Your task to perform on an android device: Show me popular games on the Play Store Image 0: 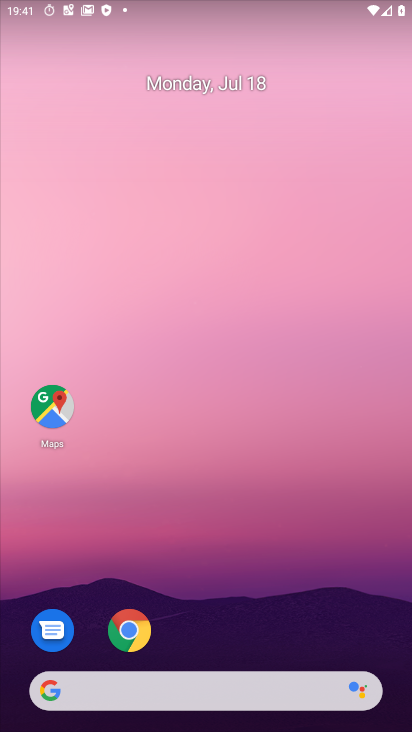
Step 0: drag from (244, 475) to (235, 42)
Your task to perform on an android device: Show me popular games on the Play Store Image 1: 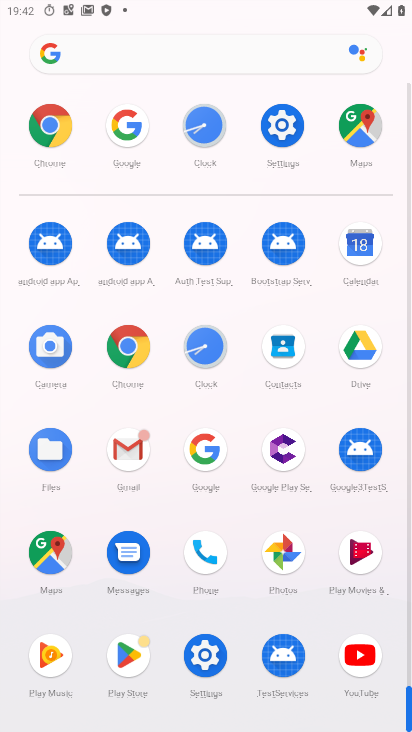
Step 1: click (137, 657)
Your task to perform on an android device: Show me popular games on the Play Store Image 2: 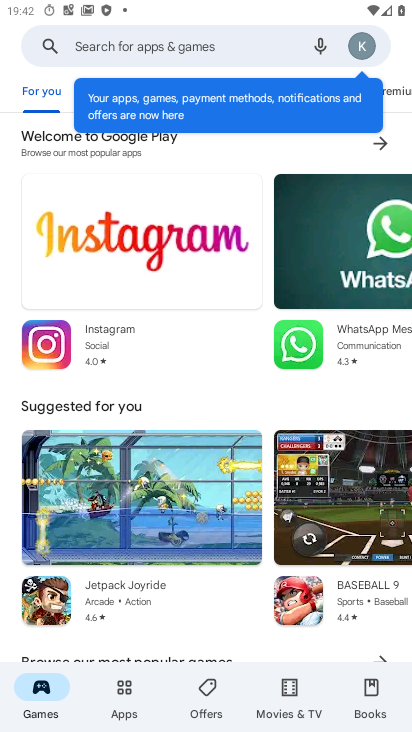
Step 2: click (141, 46)
Your task to perform on an android device: Show me popular games on the Play Store Image 3: 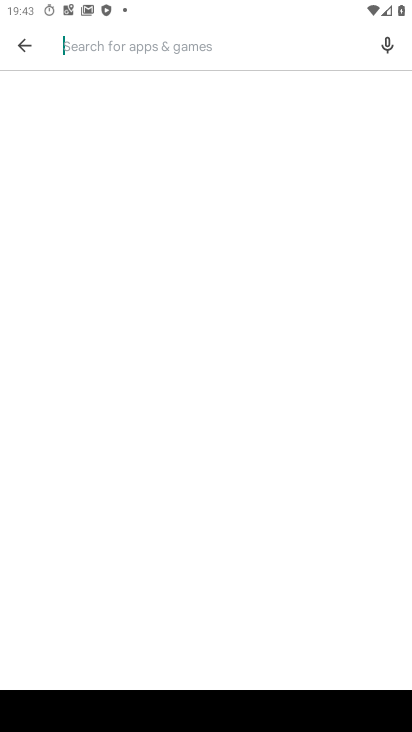
Step 3: type " popular games "
Your task to perform on an android device: Show me popular games on the Play Store Image 4: 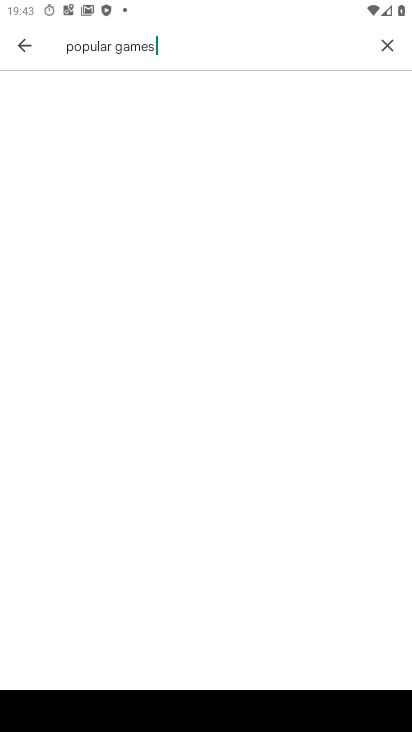
Step 4: press enter
Your task to perform on an android device: Show me popular games on the Play Store Image 5: 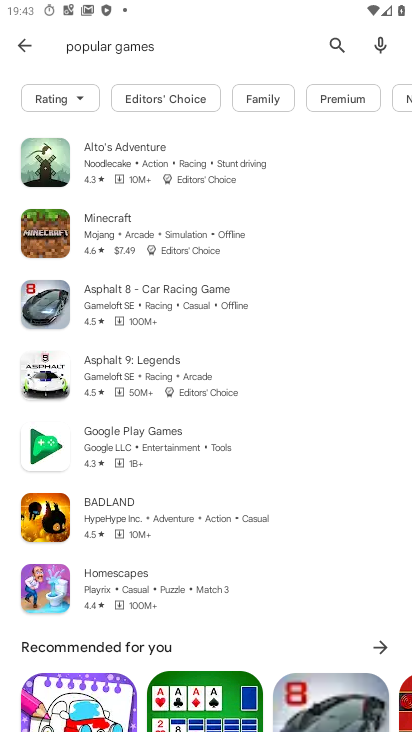
Step 5: task complete